Your task to perform on an android device: check storage Image 0: 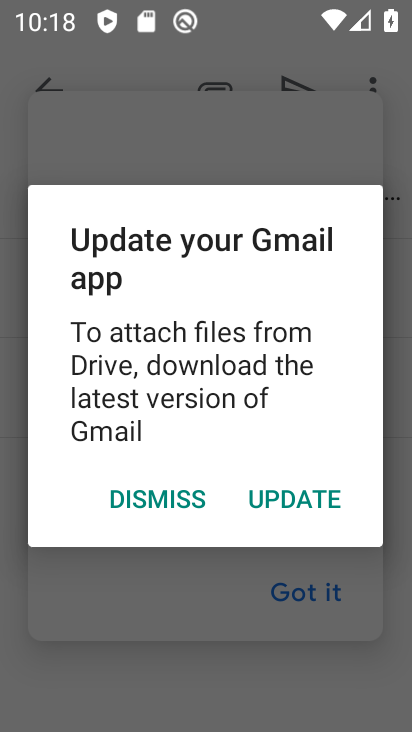
Step 0: press home button
Your task to perform on an android device: check storage Image 1: 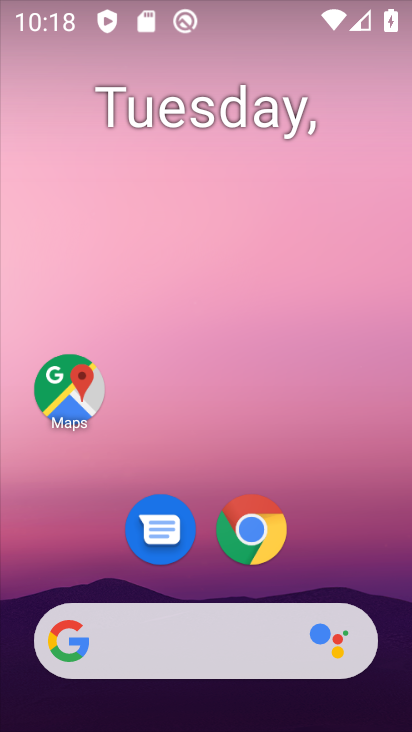
Step 1: drag from (214, 574) to (192, 231)
Your task to perform on an android device: check storage Image 2: 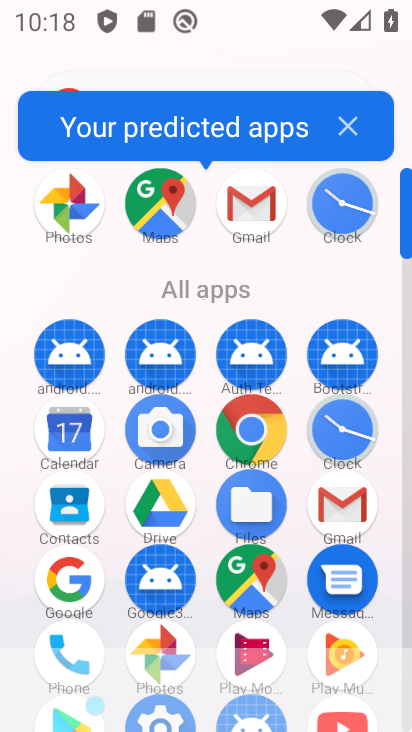
Step 2: drag from (205, 542) to (228, 192)
Your task to perform on an android device: check storage Image 3: 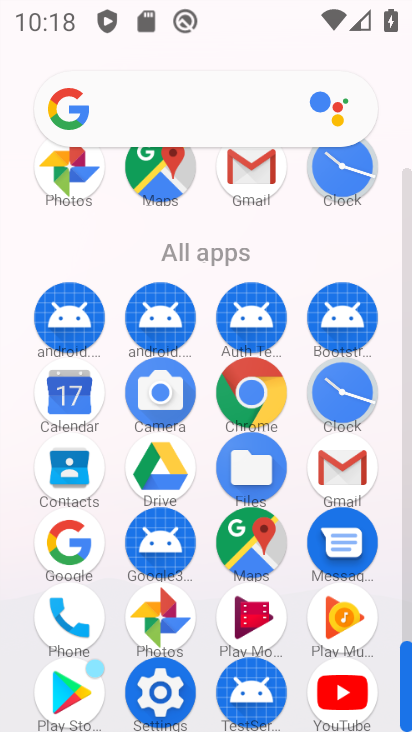
Step 3: click (154, 675)
Your task to perform on an android device: check storage Image 4: 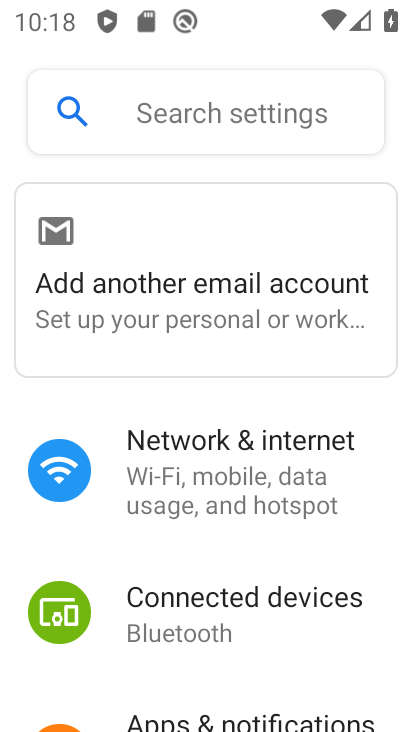
Step 4: drag from (154, 675) to (212, 131)
Your task to perform on an android device: check storage Image 5: 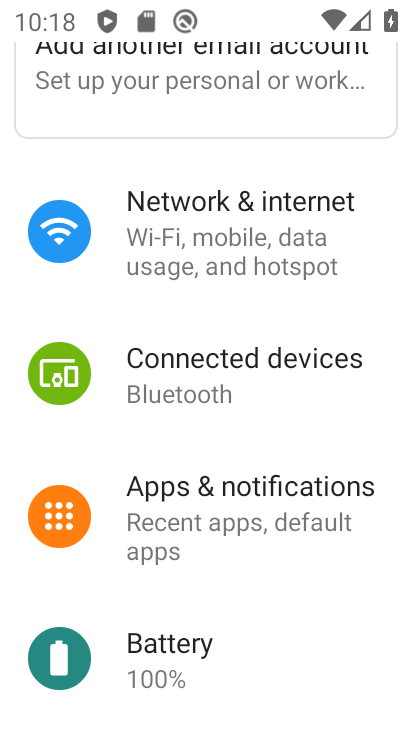
Step 5: drag from (197, 575) to (210, 108)
Your task to perform on an android device: check storage Image 6: 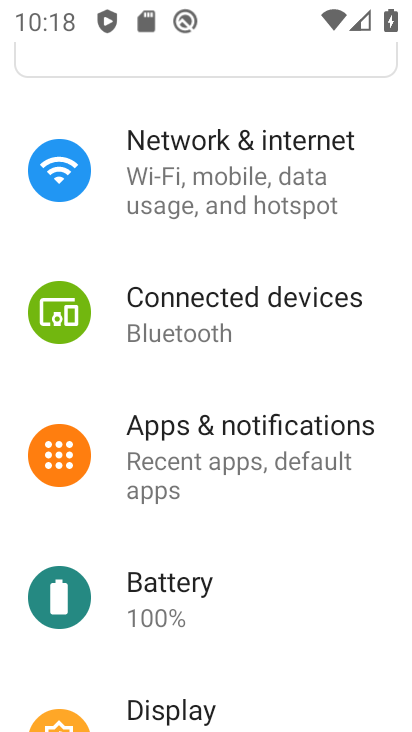
Step 6: drag from (163, 625) to (216, 239)
Your task to perform on an android device: check storage Image 7: 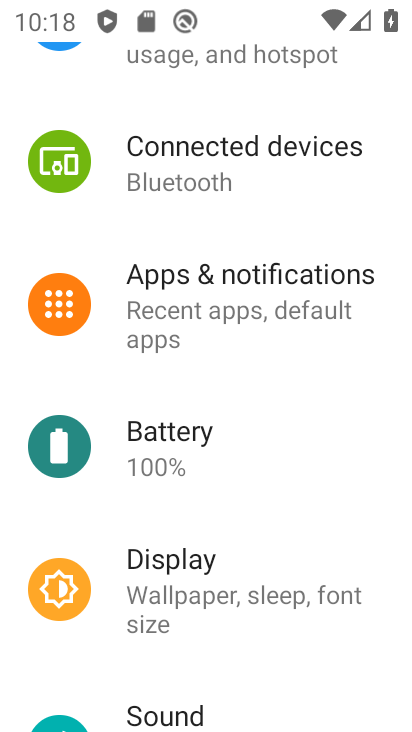
Step 7: drag from (202, 643) to (284, 155)
Your task to perform on an android device: check storage Image 8: 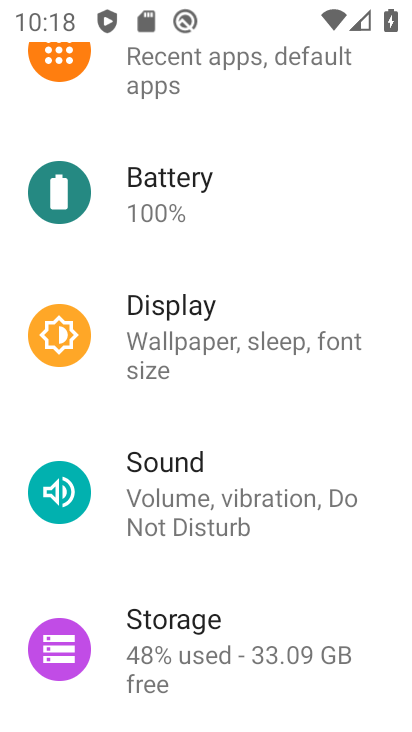
Step 8: click (205, 709)
Your task to perform on an android device: check storage Image 9: 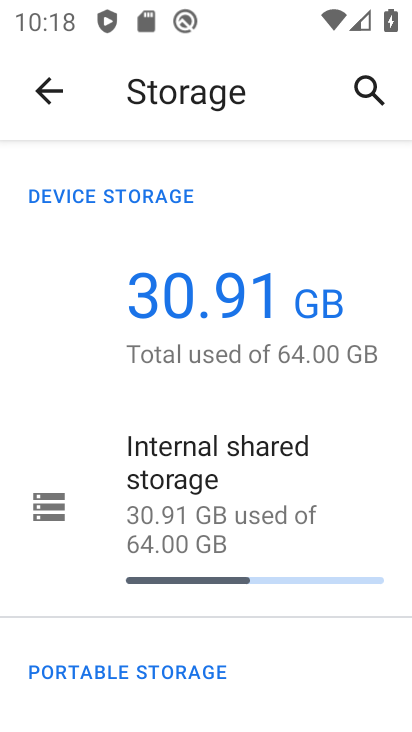
Step 9: task complete